Your task to perform on an android device: Clear all items from cart on walmart. Search for "logitech g933" on walmart, select the first entry, add it to the cart, then select checkout. Image 0: 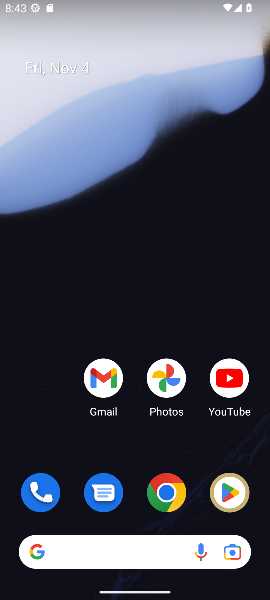
Step 0: drag from (130, 443) to (115, 49)
Your task to perform on an android device: Clear all items from cart on walmart. Search for "logitech g933" on walmart, select the first entry, add it to the cart, then select checkout. Image 1: 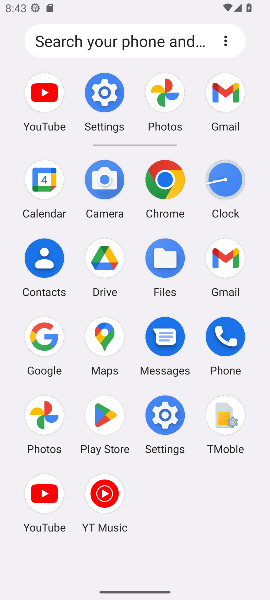
Step 1: click (164, 179)
Your task to perform on an android device: Clear all items from cart on walmart. Search for "logitech g933" on walmart, select the first entry, add it to the cart, then select checkout. Image 2: 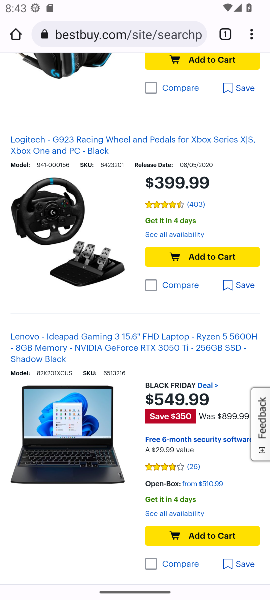
Step 2: click (132, 32)
Your task to perform on an android device: Clear all items from cart on walmart. Search for "logitech g933" on walmart, select the first entry, add it to the cart, then select checkout. Image 3: 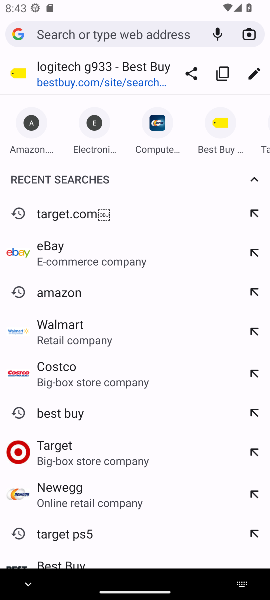
Step 3: type "walmart.com"
Your task to perform on an android device: Clear all items from cart on walmart. Search for "logitech g933" on walmart, select the first entry, add it to the cart, then select checkout. Image 4: 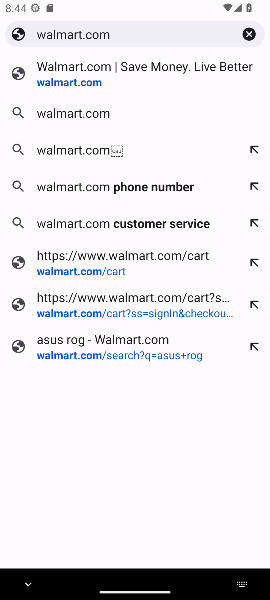
Step 4: press enter
Your task to perform on an android device: Clear all items from cart on walmart. Search for "logitech g933" on walmart, select the first entry, add it to the cart, then select checkout. Image 5: 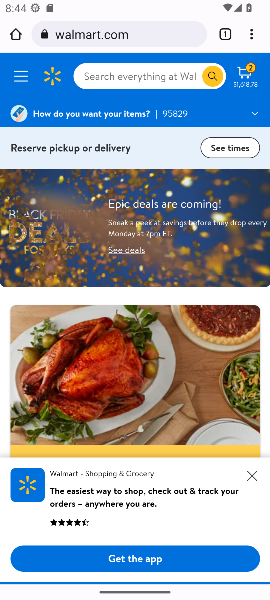
Step 5: click (247, 83)
Your task to perform on an android device: Clear all items from cart on walmart. Search for "logitech g933" on walmart, select the first entry, add it to the cart, then select checkout. Image 6: 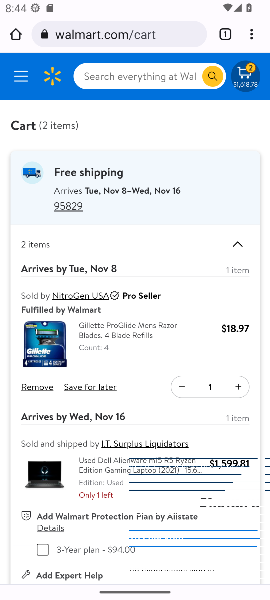
Step 6: click (38, 386)
Your task to perform on an android device: Clear all items from cart on walmart. Search for "logitech g933" on walmart, select the first entry, add it to the cart, then select checkout. Image 7: 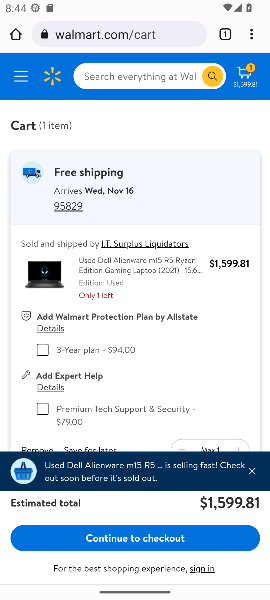
Step 7: drag from (189, 404) to (206, 299)
Your task to perform on an android device: Clear all items from cart on walmart. Search for "logitech g933" on walmart, select the first entry, add it to the cart, then select checkout. Image 8: 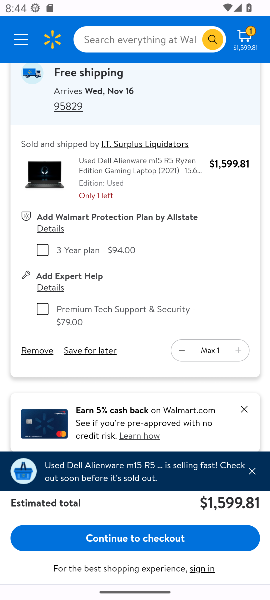
Step 8: click (37, 353)
Your task to perform on an android device: Clear all items from cart on walmart. Search for "logitech g933" on walmart, select the first entry, add it to the cart, then select checkout. Image 9: 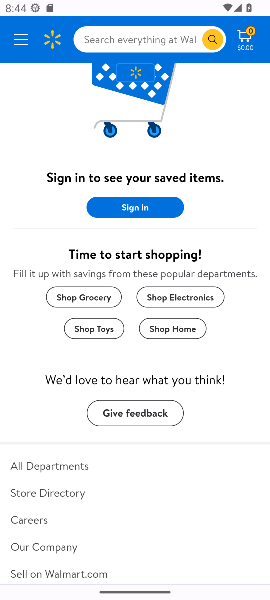
Step 9: click (165, 40)
Your task to perform on an android device: Clear all items from cart on walmart. Search for "logitech g933" on walmart, select the first entry, add it to the cart, then select checkout. Image 10: 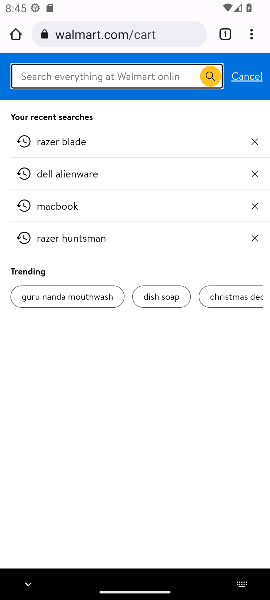
Step 10: type "logitech g933"
Your task to perform on an android device: Clear all items from cart on walmart. Search for "logitech g933" on walmart, select the first entry, add it to the cart, then select checkout. Image 11: 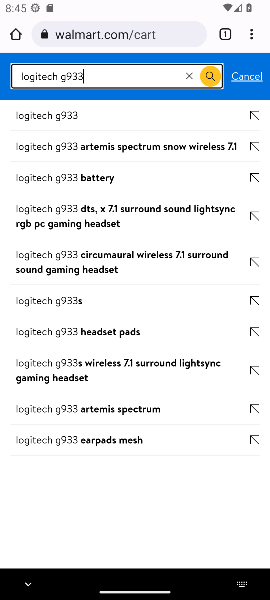
Step 11: press enter
Your task to perform on an android device: Clear all items from cart on walmart. Search for "logitech g933" on walmart, select the first entry, add it to the cart, then select checkout. Image 12: 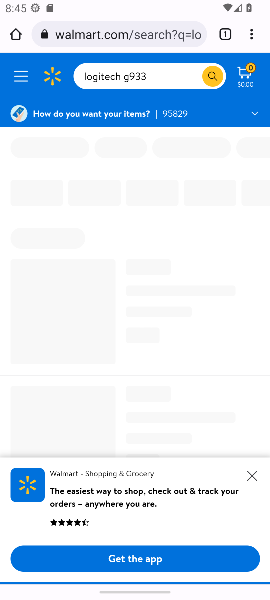
Step 12: press enter
Your task to perform on an android device: Clear all items from cart on walmart. Search for "logitech g933" on walmart, select the first entry, add it to the cart, then select checkout. Image 13: 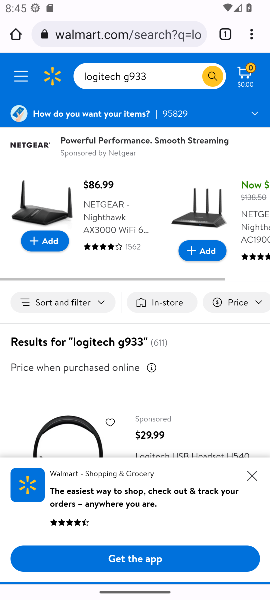
Step 13: drag from (220, 410) to (216, 213)
Your task to perform on an android device: Clear all items from cart on walmart. Search for "logitech g933" on walmart, select the first entry, add it to the cart, then select checkout. Image 14: 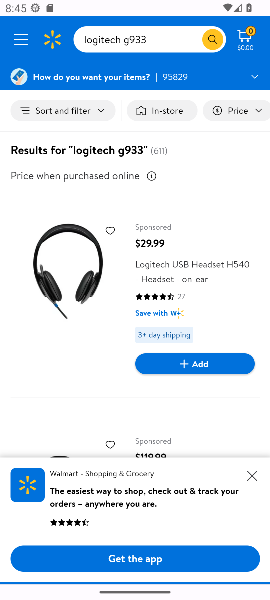
Step 14: drag from (139, 414) to (121, 116)
Your task to perform on an android device: Clear all items from cart on walmart. Search for "logitech g933" on walmart, select the first entry, add it to the cart, then select checkout. Image 15: 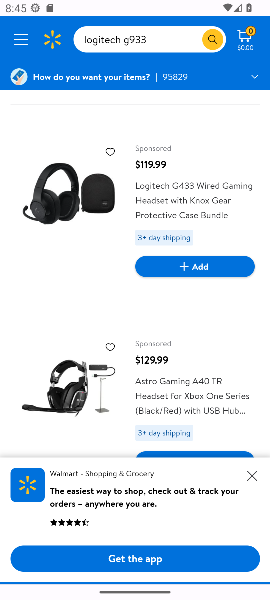
Step 15: drag from (109, 392) to (140, 133)
Your task to perform on an android device: Clear all items from cart on walmart. Search for "logitech g933" on walmart, select the first entry, add it to the cart, then select checkout. Image 16: 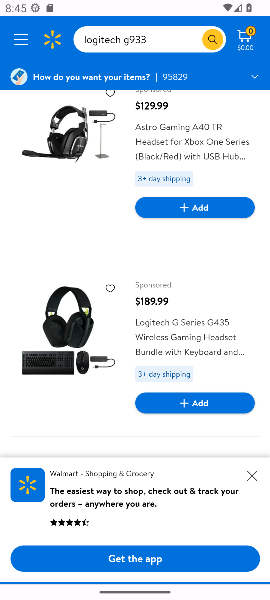
Step 16: drag from (167, 402) to (182, 169)
Your task to perform on an android device: Clear all items from cart on walmart. Search for "logitech g933" on walmart, select the first entry, add it to the cart, then select checkout. Image 17: 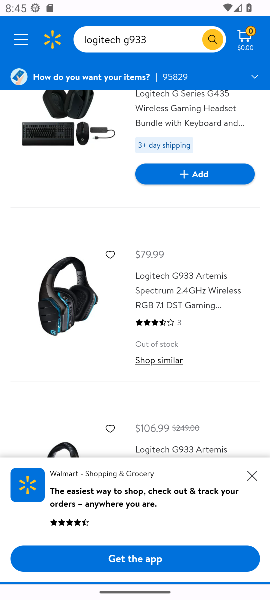
Step 17: drag from (195, 411) to (201, 312)
Your task to perform on an android device: Clear all items from cart on walmart. Search for "logitech g933" on walmart, select the first entry, add it to the cart, then select checkout. Image 18: 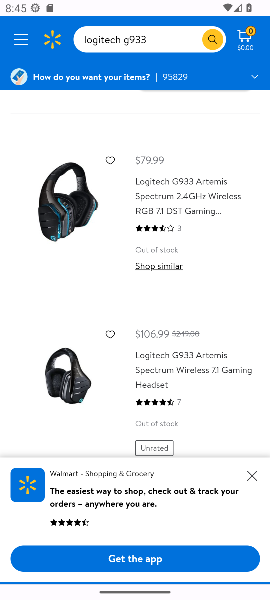
Step 18: click (162, 226)
Your task to perform on an android device: Clear all items from cart on walmart. Search for "logitech g933" on walmart, select the first entry, add it to the cart, then select checkout. Image 19: 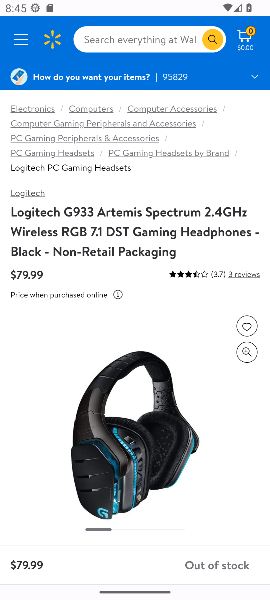
Step 19: task complete